Your task to perform on an android device: Open settings on Google Maps Image 0: 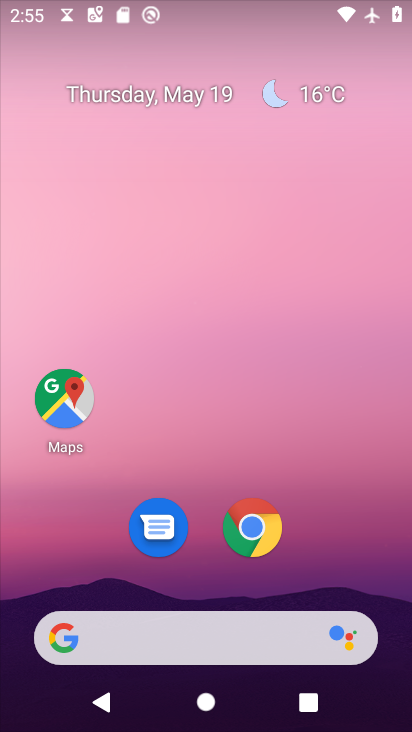
Step 0: click (68, 395)
Your task to perform on an android device: Open settings on Google Maps Image 1: 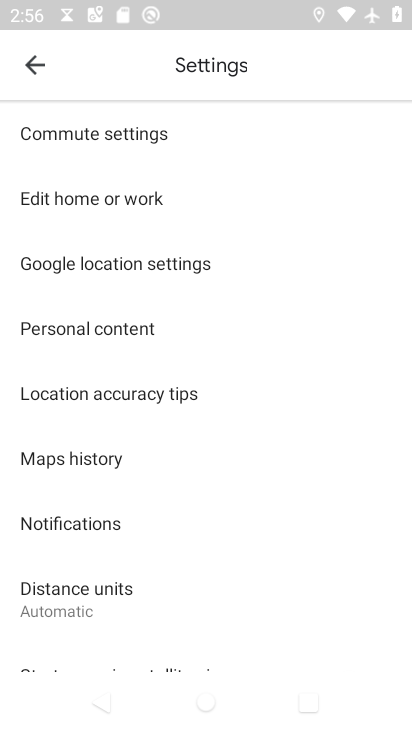
Step 1: task complete